Your task to perform on an android device: turn on the 12-hour format for clock Image 0: 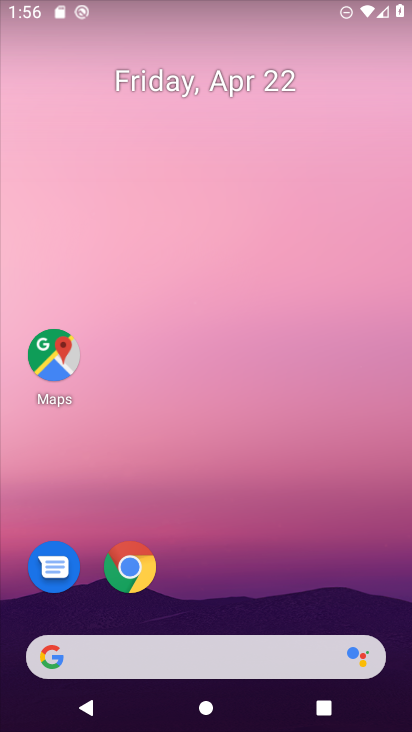
Step 0: drag from (245, 599) to (263, 125)
Your task to perform on an android device: turn on the 12-hour format for clock Image 1: 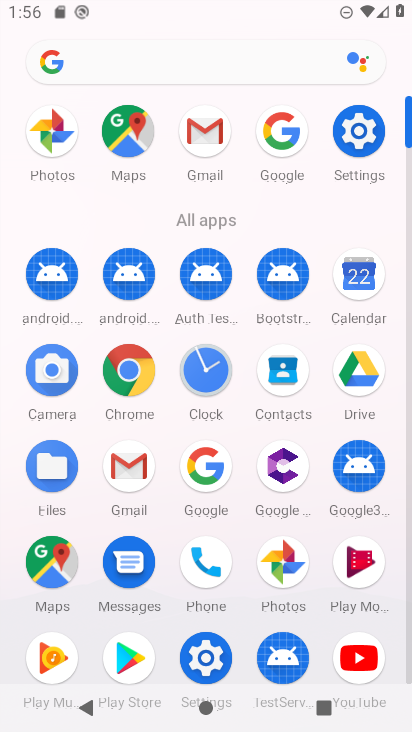
Step 1: click (218, 380)
Your task to perform on an android device: turn on the 12-hour format for clock Image 2: 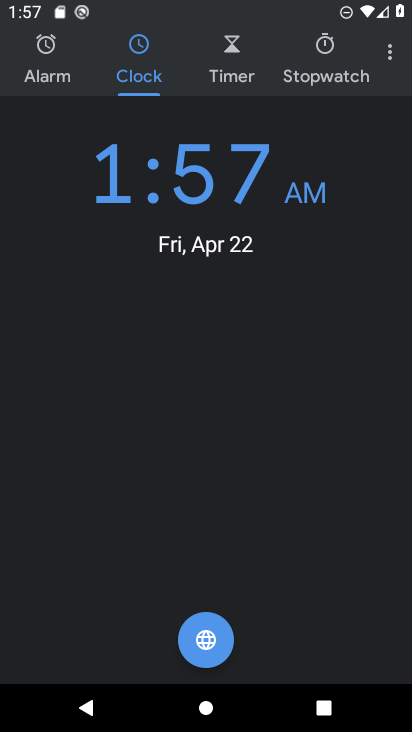
Step 2: click (386, 64)
Your task to perform on an android device: turn on the 12-hour format for clock Image 3: 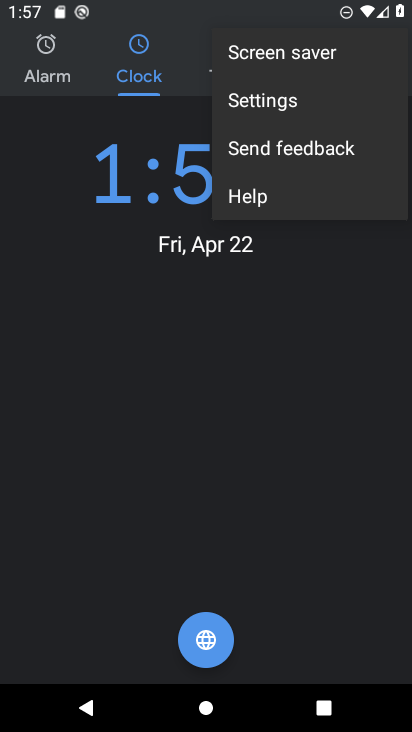
Step 3: click (284, 107)
Your task to perform on an android device: turn on the 12-hour format for clock Image 4: 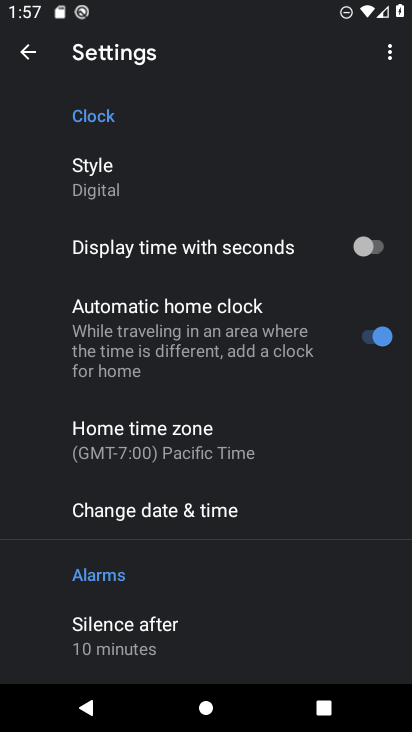
Step 4: click (147, 526)
Your task to perform on an android device: turn on the 12-hour format for clock Image 5: 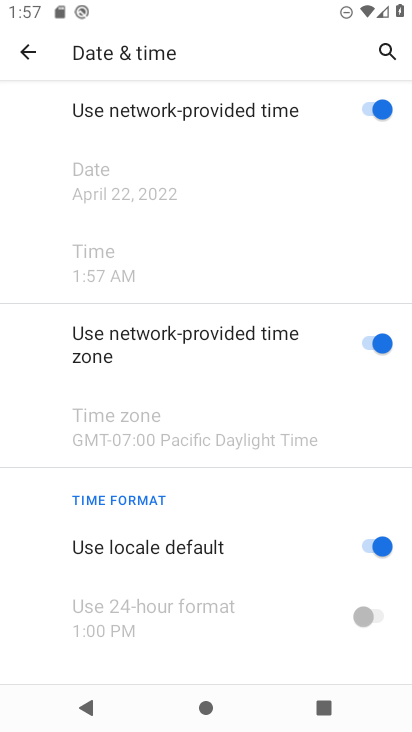
Step 5: task complete